Your task to perform on an android device: Show me popular videos on Youtube Image 0: 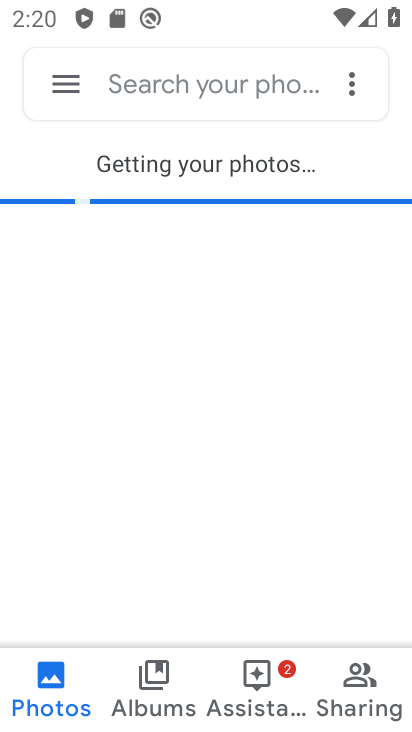
Step 0: press home button
Your task to perform on an android device: Show me popular videos on Youtube Image 1: 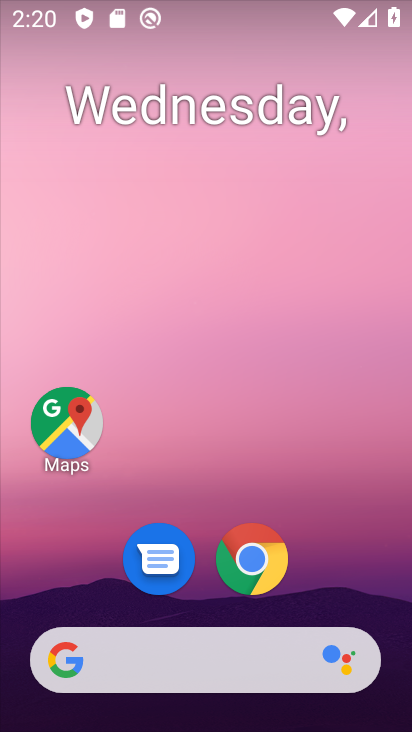
Step 1: drag from (341, 587) to (323, 186)
Your task to perform on an android device: Show me popular videos on Youtube Image 2: 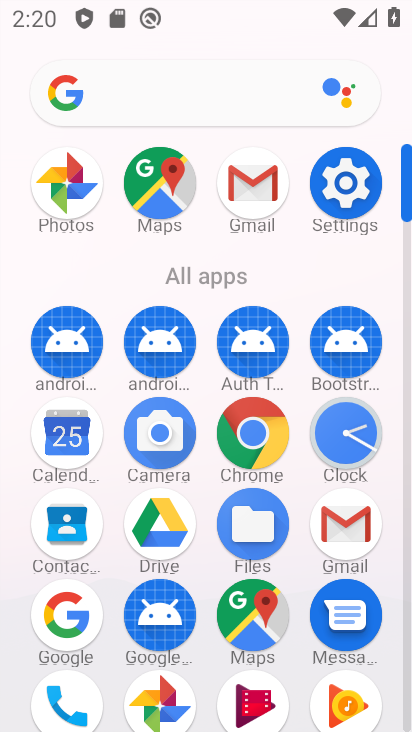
Step 2: drag from (233, 551) to (283, 190)
Your task to perform on an android device: Show me popular videos on Youtube Image 3: 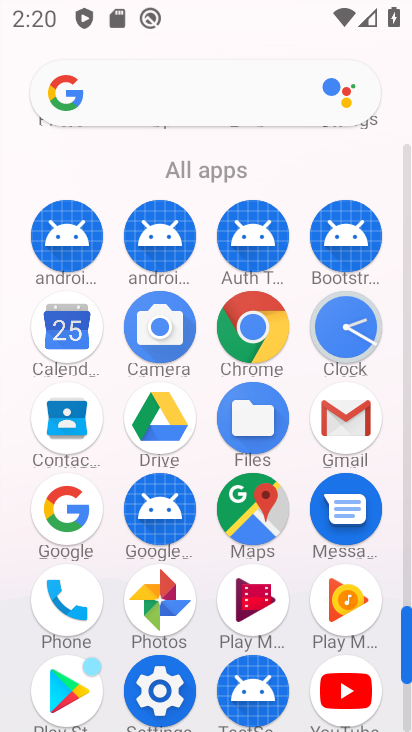
Step 3: click (349, 687)
Your task to perform on an android device: Show me popular videos on Youtube Image 4: 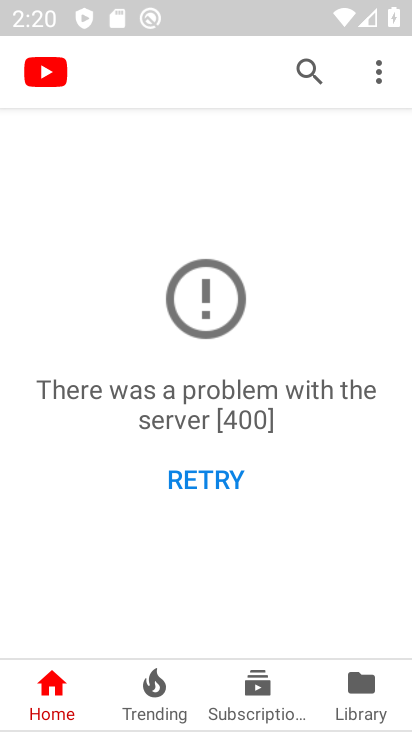
Step 4: task complete